Your task to perform on an android device: Check the weather Image 0: 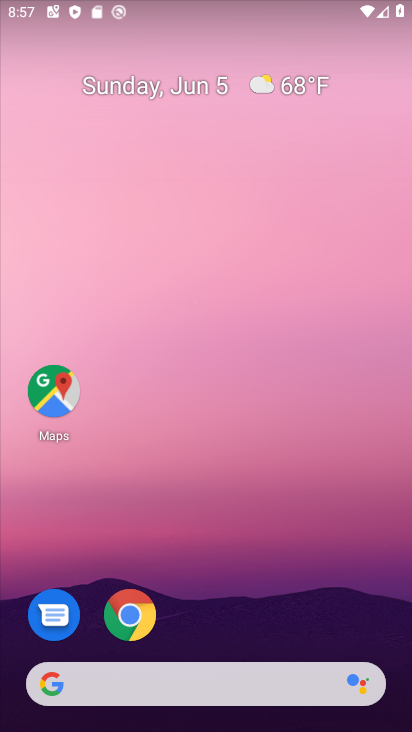
Step 0: click (214, 697)
Your task to perform on an android device: Check the weather Image 1: 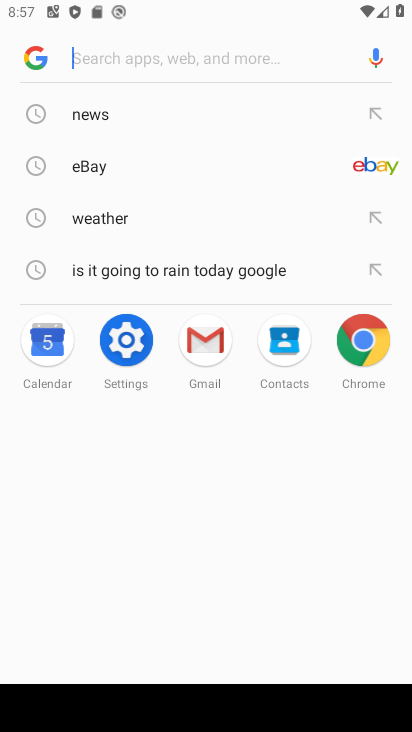
Step 1: click (103, 230)
Your task to perform on an android device: Check the weather Image 2: 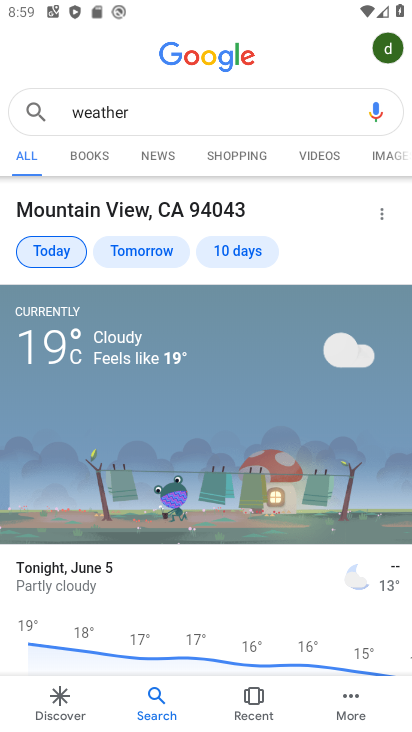
Step 2: task complete